Your task to perform on an android device: check storage Image 0: 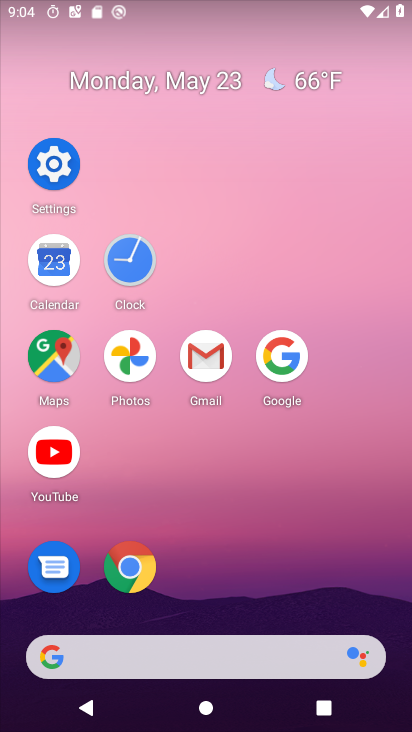
Step 0: click (53, 175)
Your task to perform on an android device: check storage Image 1: 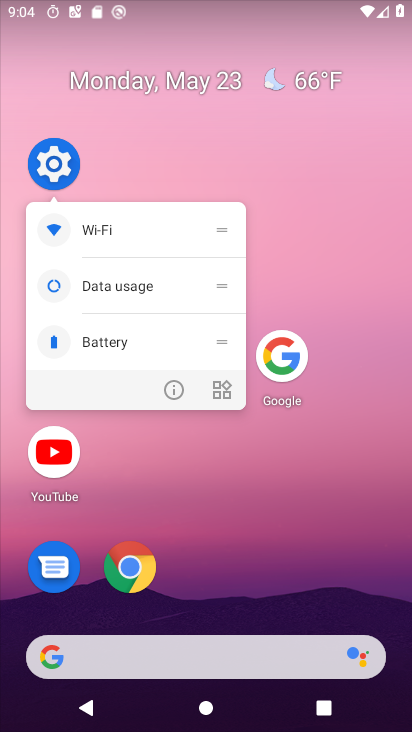
Step 1: click (52, 177)
Your task to perform on an android device: check storage Image 2: 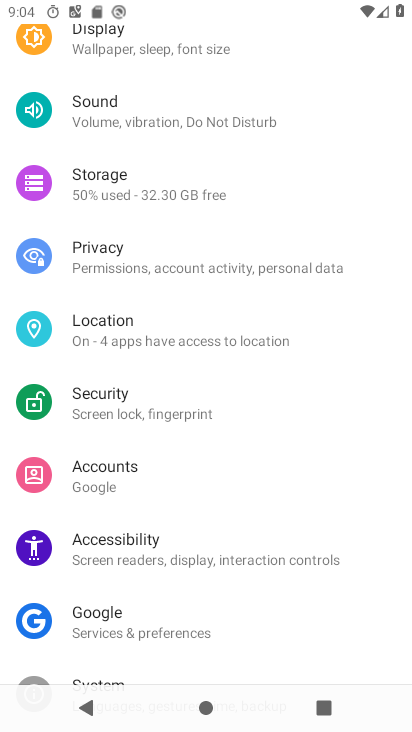
Step 2: click (108, 210)
Your task to perform on an android device: check storage Image 3: 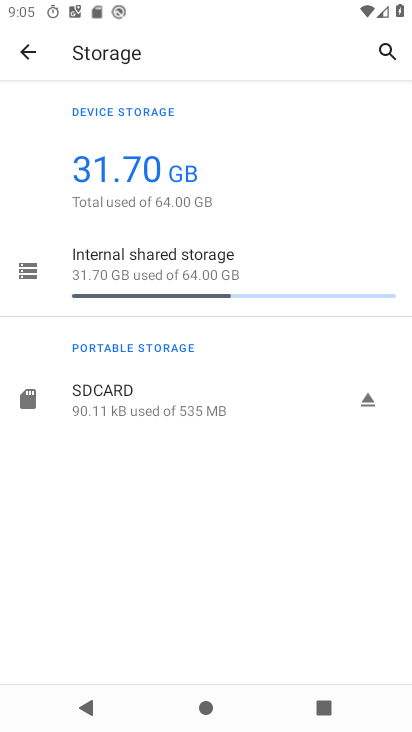
Step 3: task complete